Your task to perform on an android device: Go to ESPN.com Image 0: 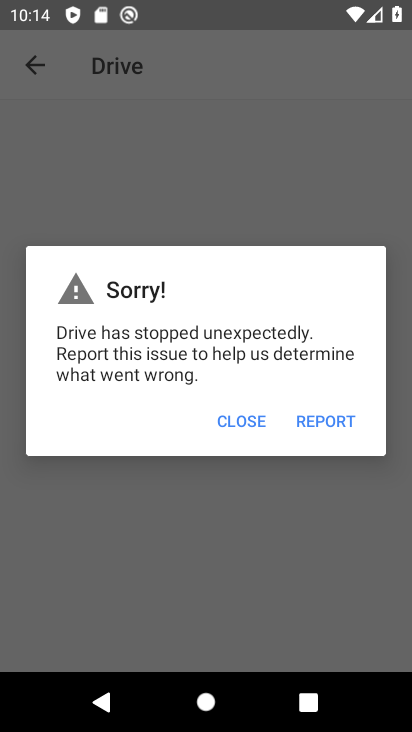
Step 0: press home button
Your task to perform on an android device: Go to ESPN.com Image 1: 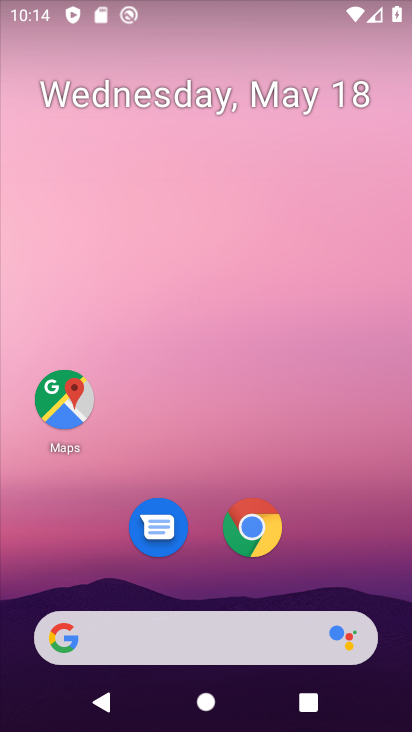
Step 1: click (259, 548)
Your task to perform on an android device: Go to ESPN.com Image 2: 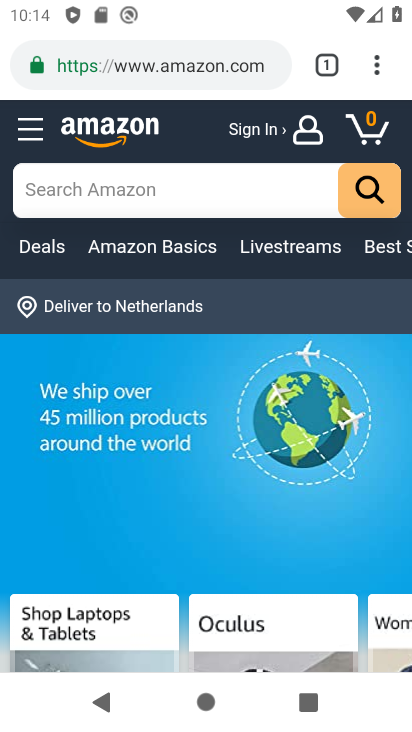
Step 2: click (223, 86)
Your task to perform on an android device: Go to ESPN.com Image 3: 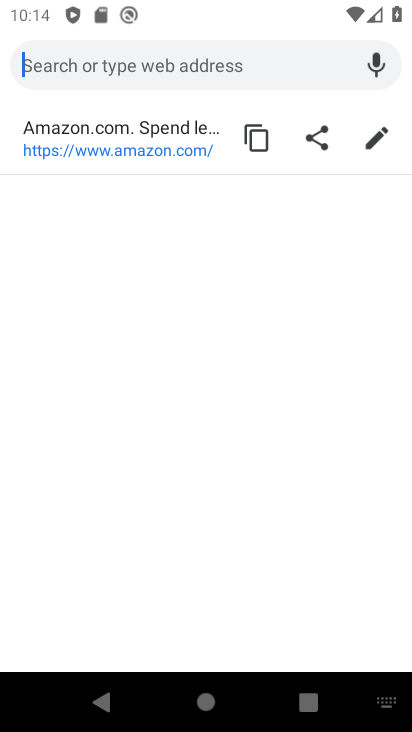
Step 3: type "espn.com"
Your task to perform on an android device: Go to ESPN.com Image 4: 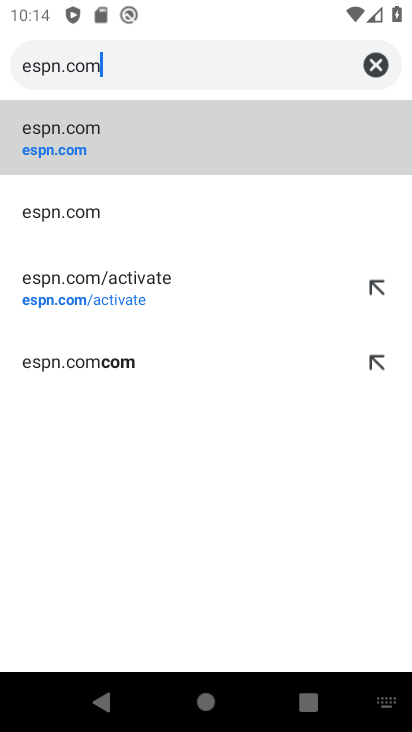
Step 4: click (95, 157)
Your task to perform on an android device: Go to ESPN.com Image 5: 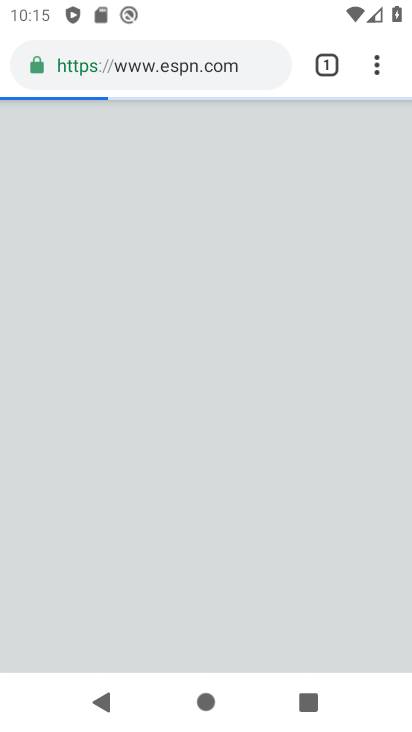
Step 5: task complete